Your task to perform on an android device: Search for sushi restaurants on Maps Image 0: 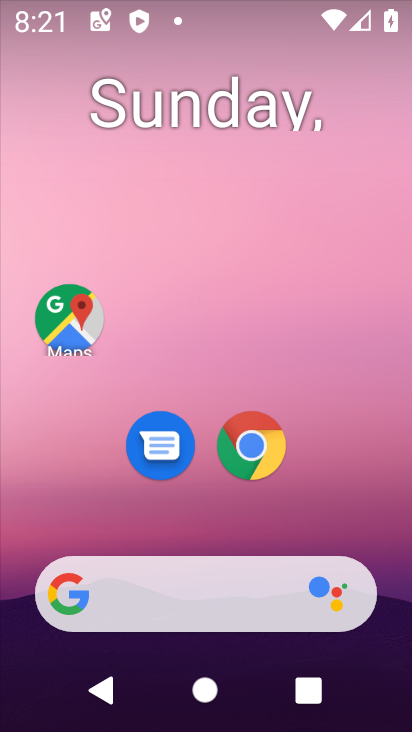
Step 0: press home button
Your task to perform on an android device: Search for sushi restaurants on Maps Image 1: 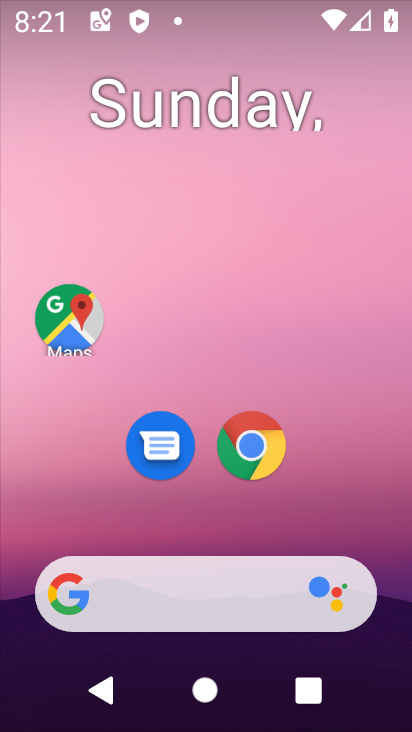
Step 1: click (54, 304)
Your task to perform on an android device: Search for sushi restaurants on Maps Image 2: 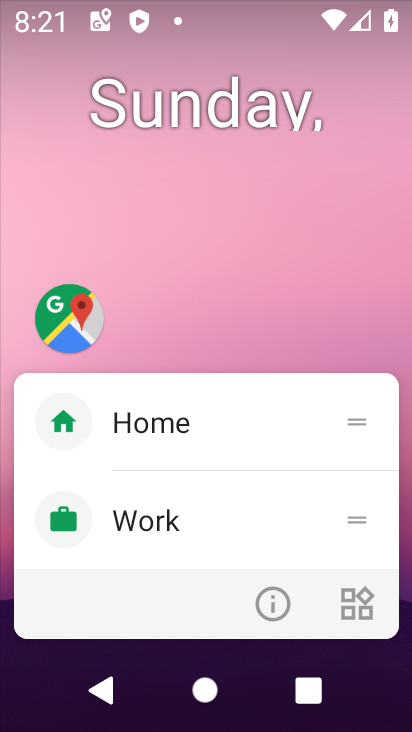
Step 2: click (99, 301)
Your task to perform on an android device: Search for sushi restaurants on Maps Image 3: 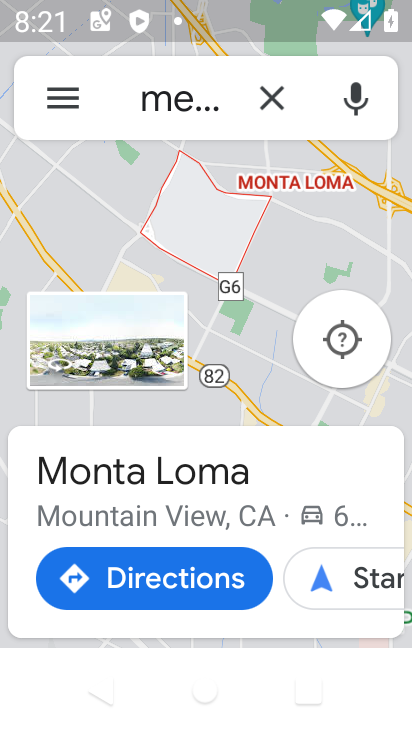
Step 3: click (273, 85)
Your task to perform on an android device: Search for sushi restaurants on Maps Image 4: 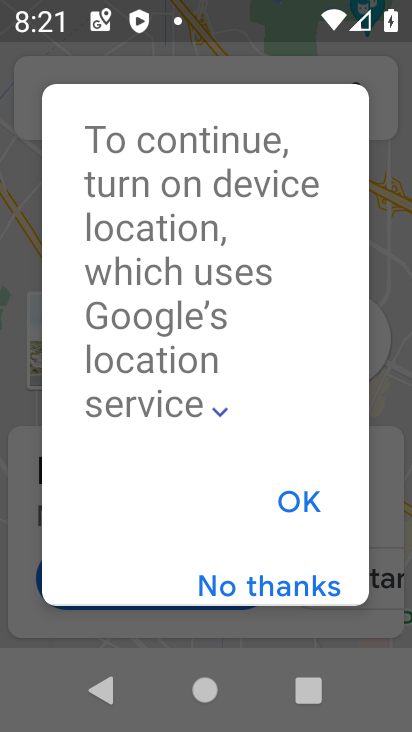
Step 4: click (285, 571)
Your task to perform on an android device: Search for sushi restaurants on Maps Image 5: 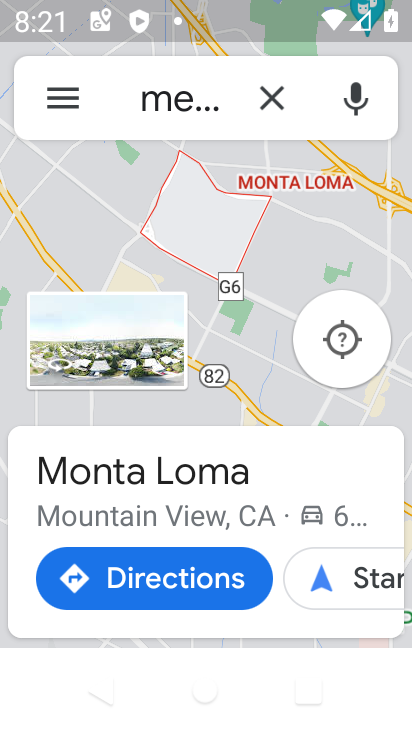
Step 5: click (267, 98)
Your task to perform on an android device: Search for sushi restaurants on Maps Image 6: 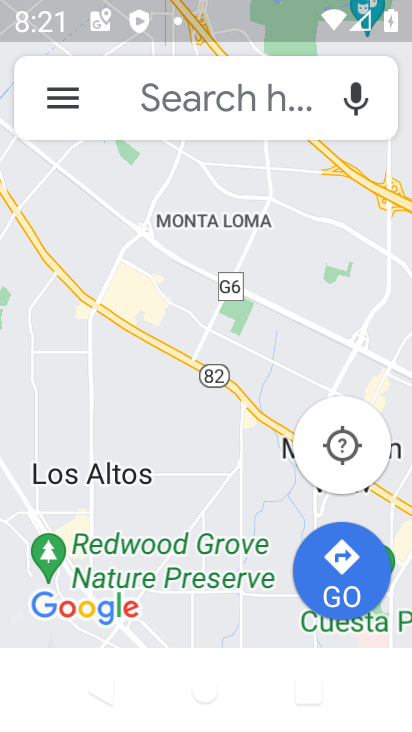
Step 6: click (187, 98)
Your task to perform on an android device: Search for sushi restaurants on Maps Image 7: 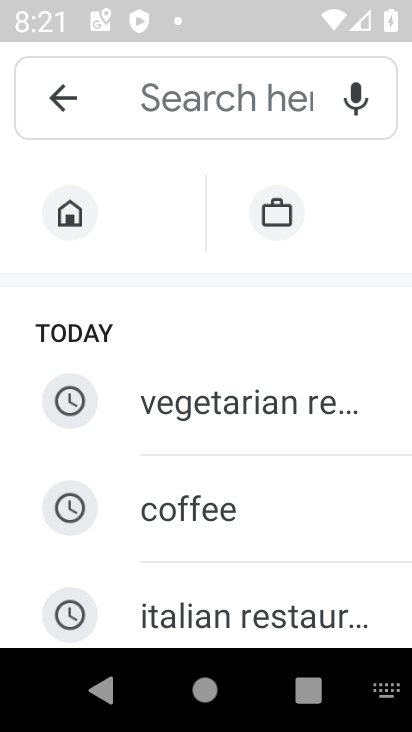
Step 7: drag from (1, 564) to (167, 111)
Your task to perform on an android device: Search for sushi restaurants on Maps Image 8: 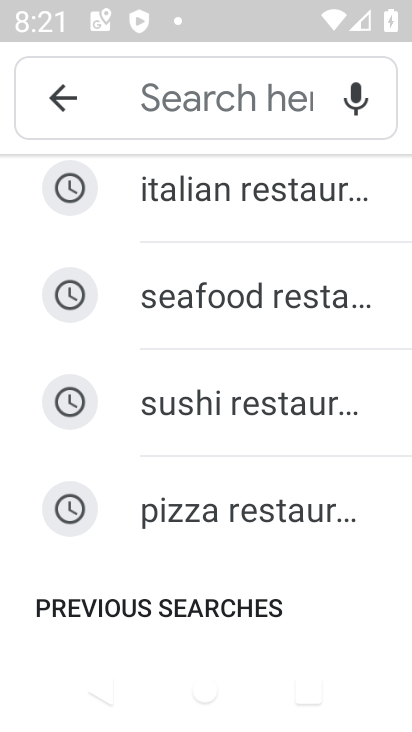
Step 8: click (211, 393)
Your task to perform on an android device: Search for sushi restaurants on Maps Image 9: 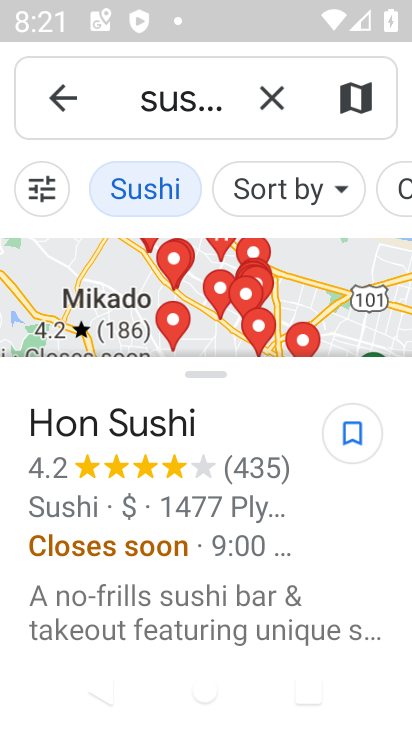
Step 9: task complete